Your task to perform on an android device: Open Chrome and go to the settings page Image 0: 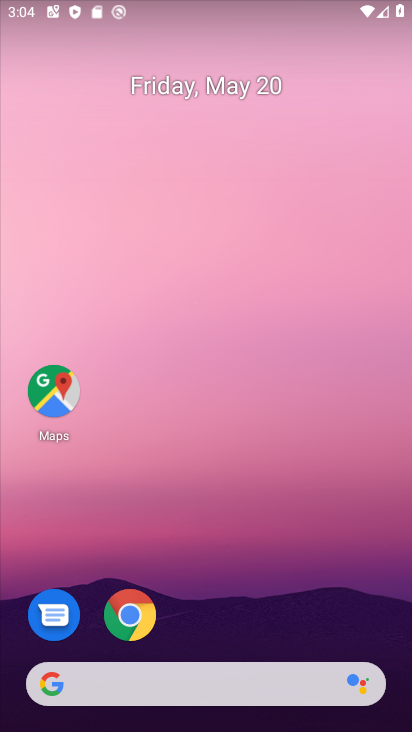
Step 0: drag from (217, 514) to (139, 191)
Your task to perform on an android device: Open Chrome and go to the settings page Image 1: 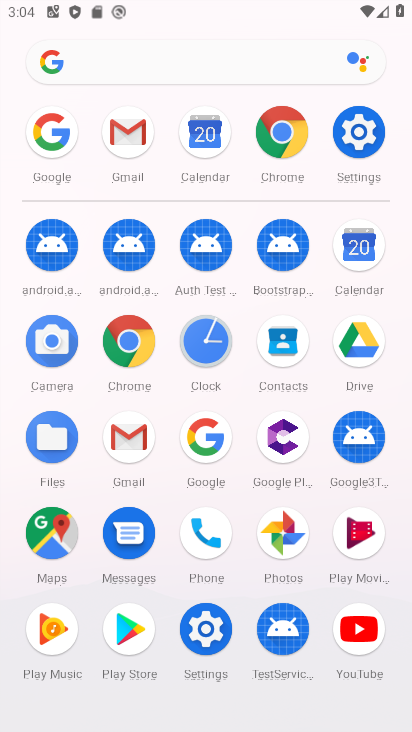
Step 1: click (277, 129)
Your task to perform on an android device: Open Chrome and go to the settings page Image 2: 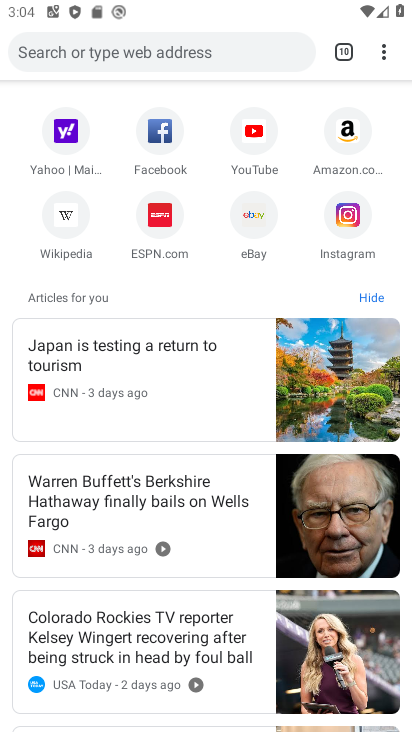
Step 2: click (383, 53)
Your task to perform on an android device: Open Chrome and go to the settings page Image 3: 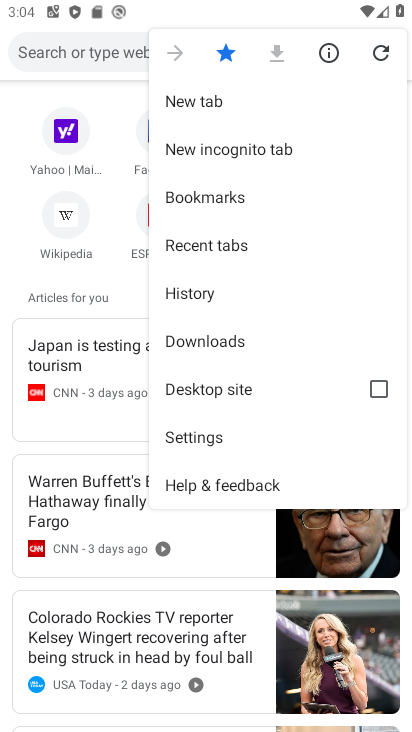
Step 3: click (212, 428)
Your task to perform on an android device: Open Chrome and go to the settings page Image 4: 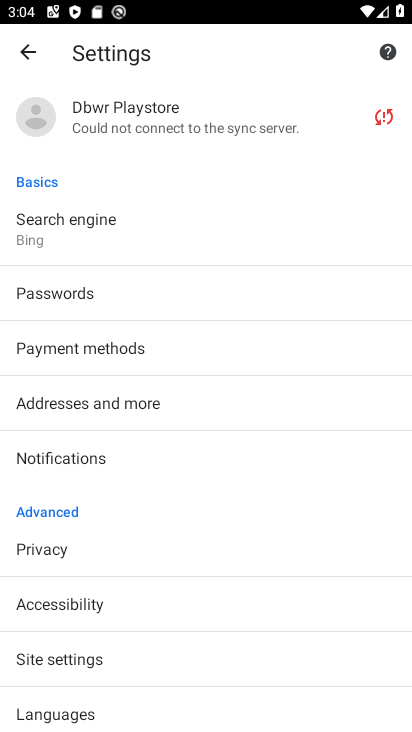
Step 4: drag from (106, 605) to (121, 482)
Your task to perform on an android device: Open Chrome and go to the settings page Image 5: 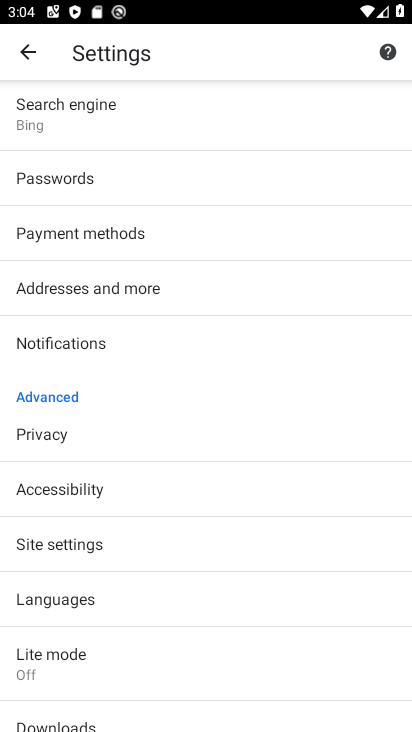
Step 5: click (101, 534)
Your task to perform on an android device: Open Chrome and go to the settings page Image 6: 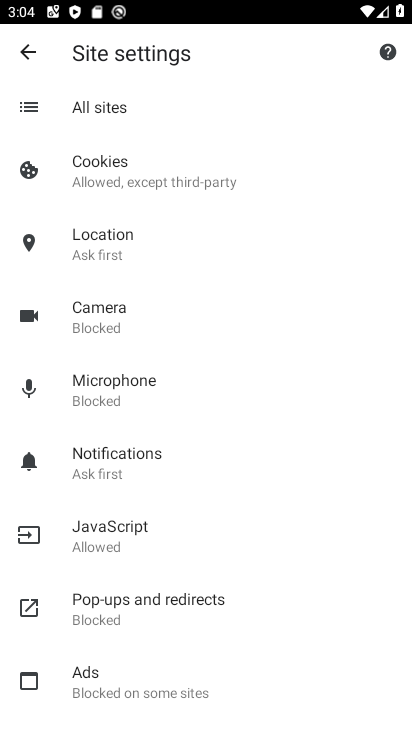
Step 6: click (21, 58)
Your task to perform on an android device: Open Chrome and go to the settings page Image 7: 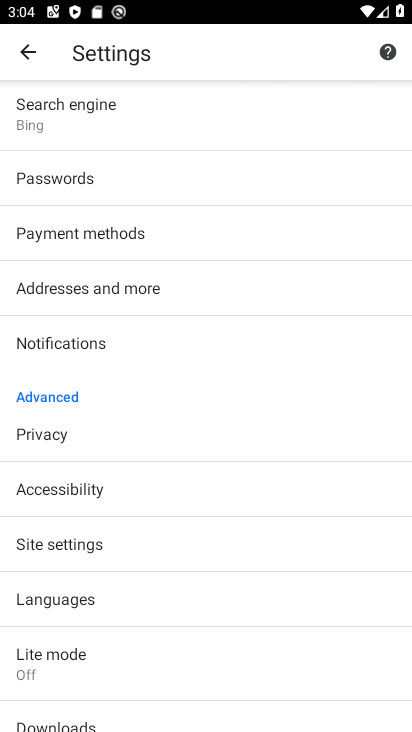
Step 7: drag from (156, 196) to (222, 213)
Your task to perform on an android device: Open Chrome and go to the settings page Image 8: 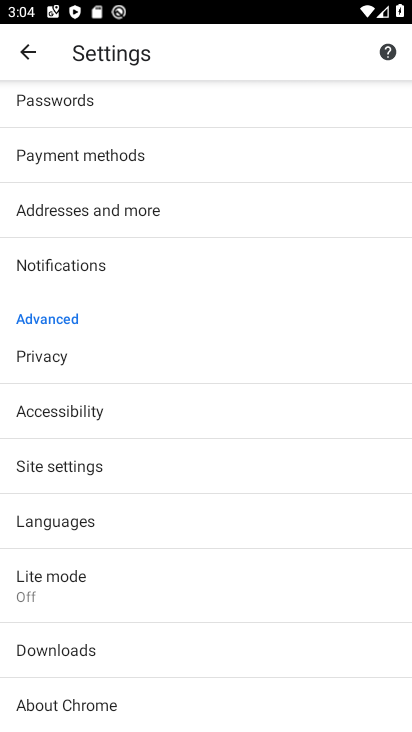
Step 8: press back button
Your task to perform on an android device: Open Chrome and go to the settings page Image 9: 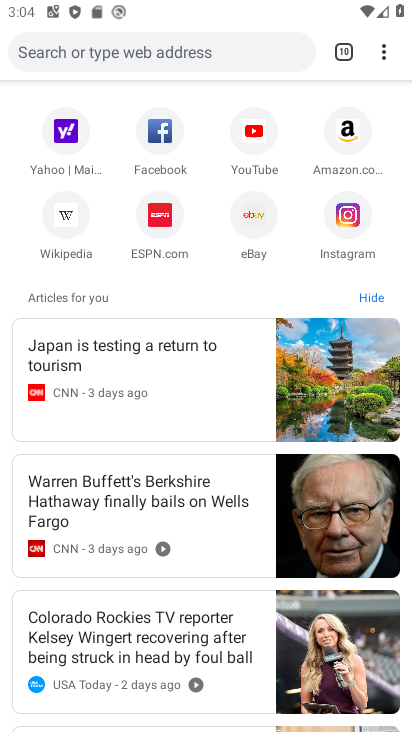
Step 9: click (388, 49)
Your task to perform on an android device: Open Chrome and go to the settings page Image 10: 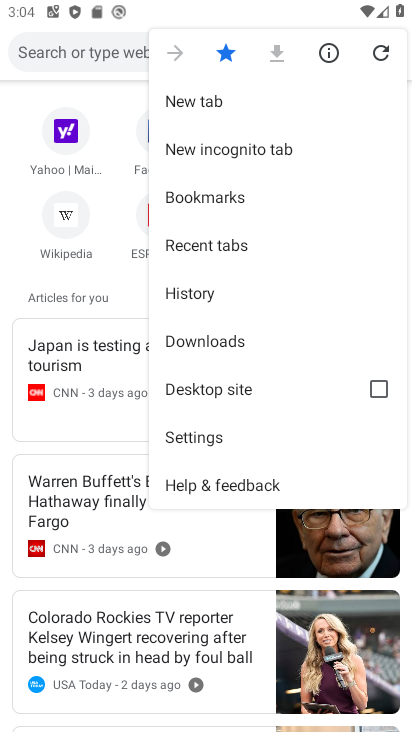
Step 10: click (231, 299)
Your task to perform on an android device: Open Chrome and go to the settings page Image 11: 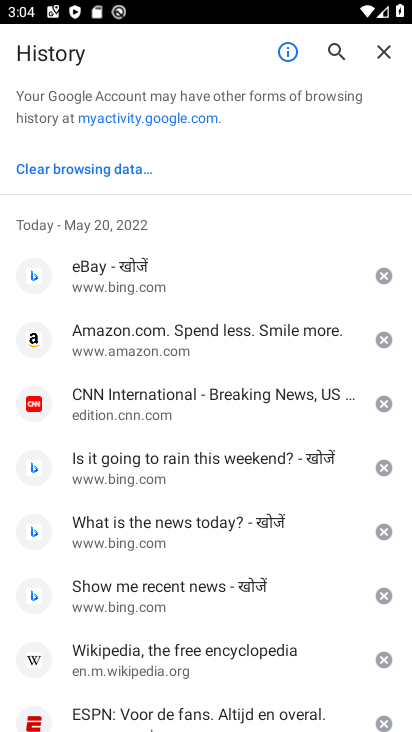
Step 11: press back button
Your task to perform on an android device: Open Chrome and go to the settings page Image 12: 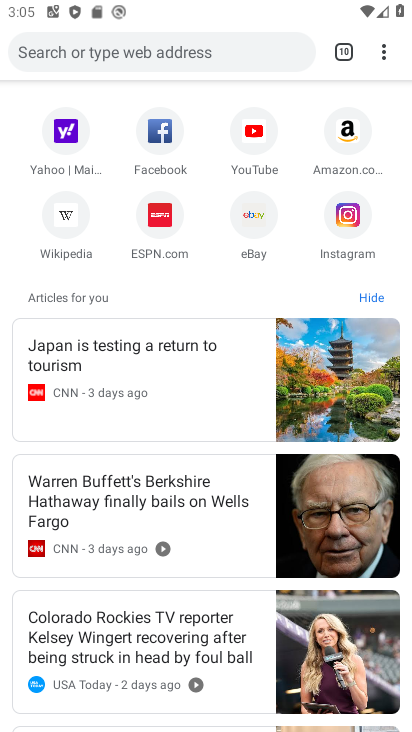
Step 12: click (371, 55)
Your task to perform on an android device: Open Chrome and go to the settings page Image 13: 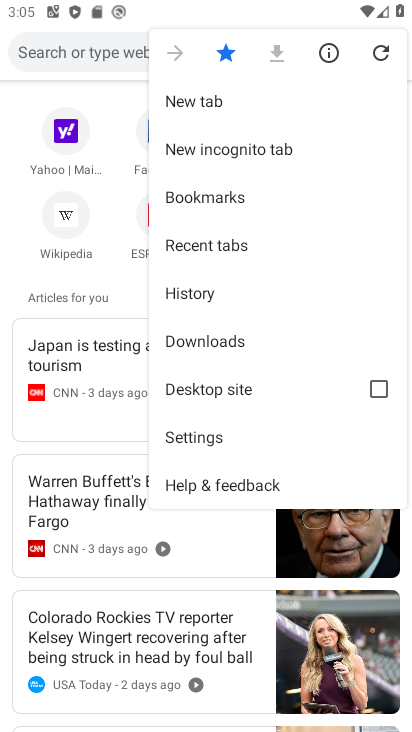
Step 13: click (213, 346)
Your task to perform on an android device: Open Chrome and go to the settings page Image 14: 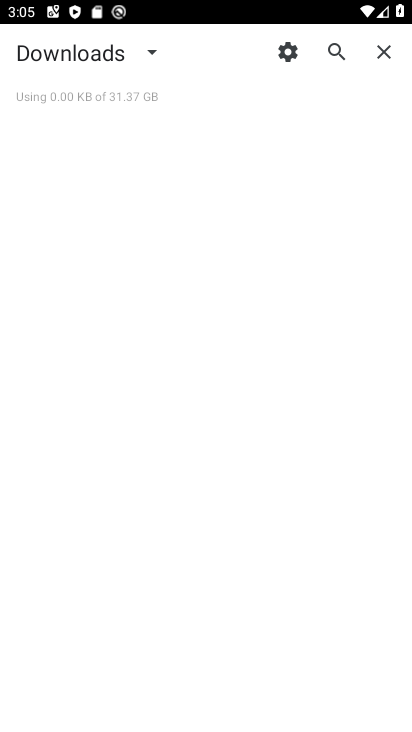
Step 14: click (380, 53)
Your task to perform on an android device: Open Chrome and go to the settings page Image 15: 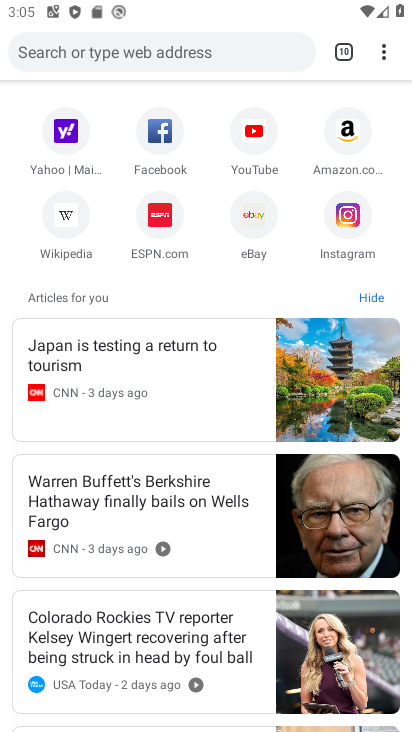
Step 15: click (378, 54)
Your task to perform on an android device: Open Chrome and go to the settings page Image 16: 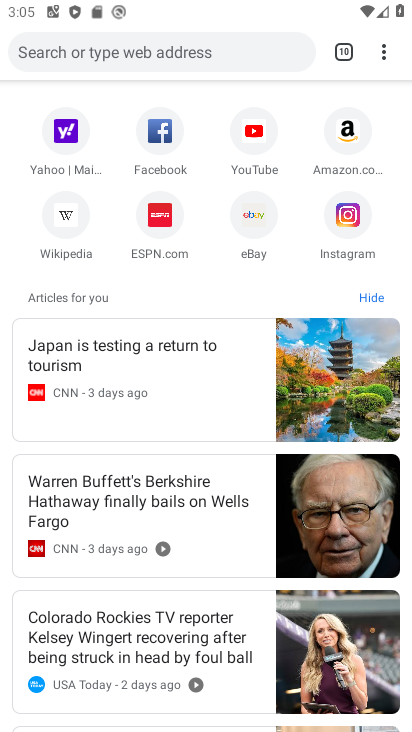
Step 16: click (374, 54)
Your task to perform on an android device: Open Chrome and go to the settings page Image 17: 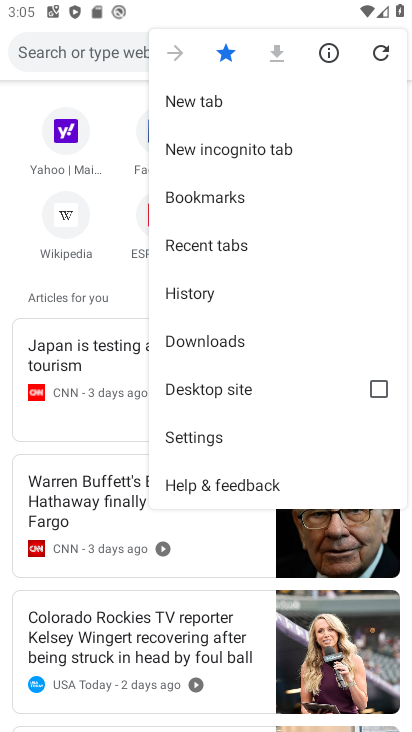
Step 17: click (226, 432)
Your task to perform on an android device: Open Chrome and go to the settings page Image 18: 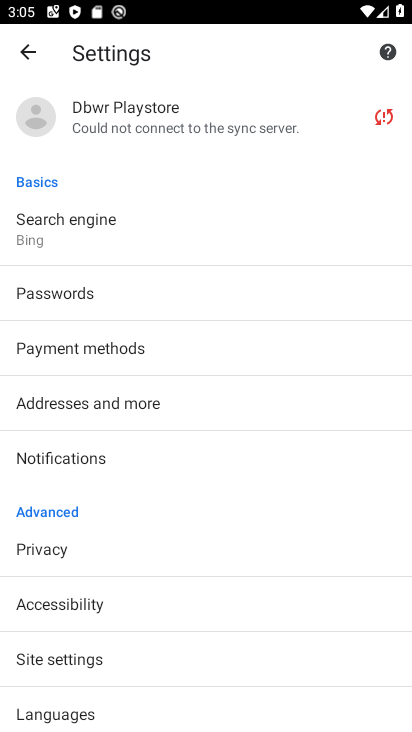
Step 18: task complete